Your task to perform on an android device: visit the assistant section in the google photos Image 0: 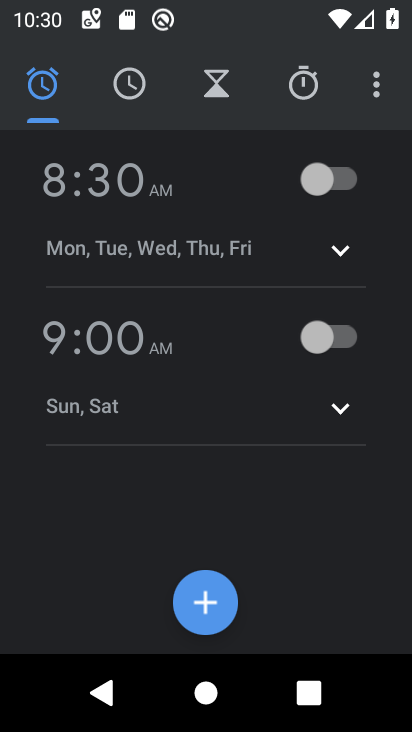
Step 0: press home button
Your task to perform on an android device: visit the assistant section in the google photos Image 1: 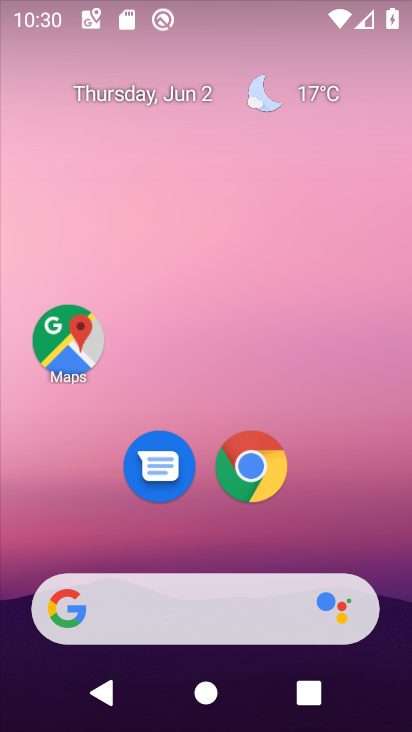
Step 1: drag from (216, 560) to (207, 215)
Your task to perform on an android device: visit the assistant section in the google photos Image 2: 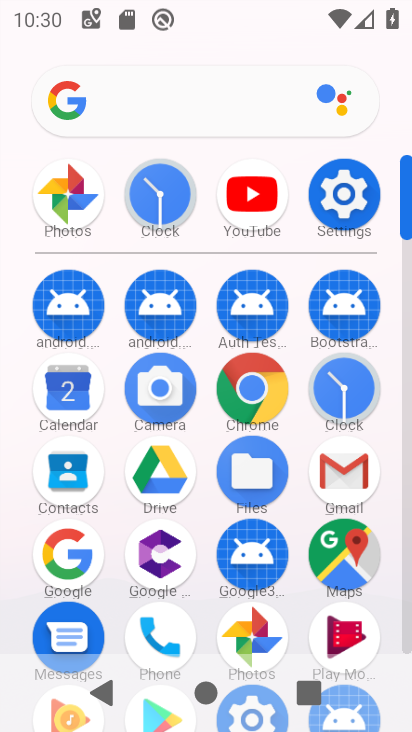
Step 2: click (236, 638)
Your task to perform on an android device: visit the assistant section in the google photos Image 3: 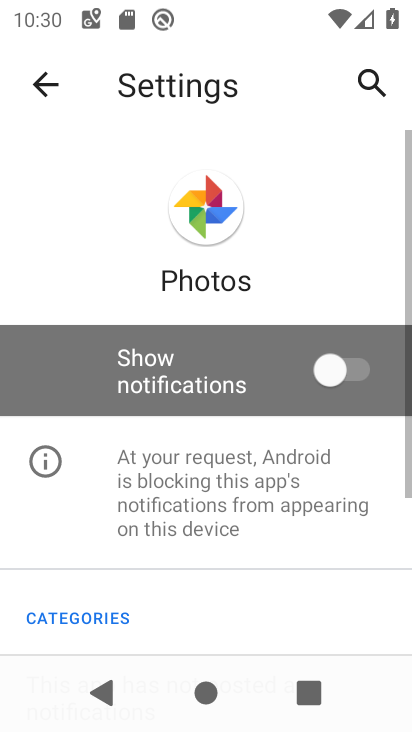
Step 3: click (59, 84)
Your task to perform on an android device: visit the assistant section in the google photos Image 4: 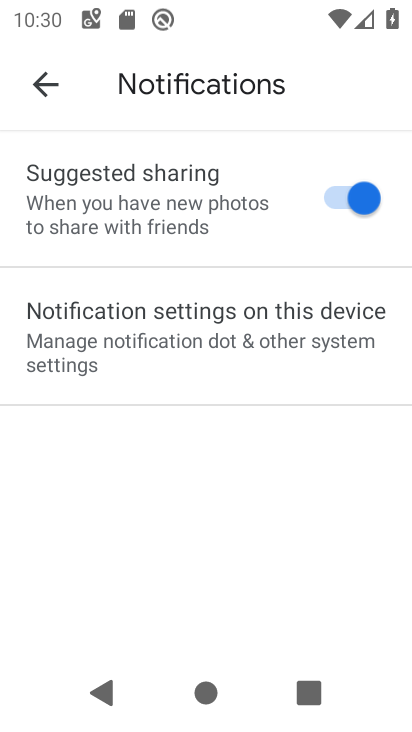
Step 4: click (26, 83)
Your task to perform on an android device: visit the assistant section in the google photos Image 5: 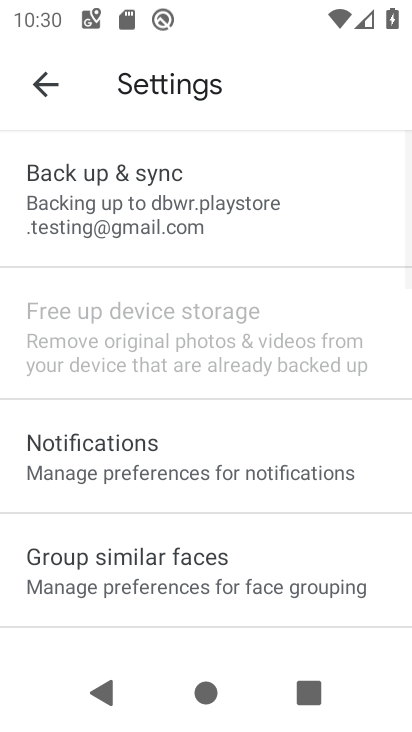
Step 5: click (30, 76)
Your task to perform on an android device: visit the assistant section in the google photos Image 6: 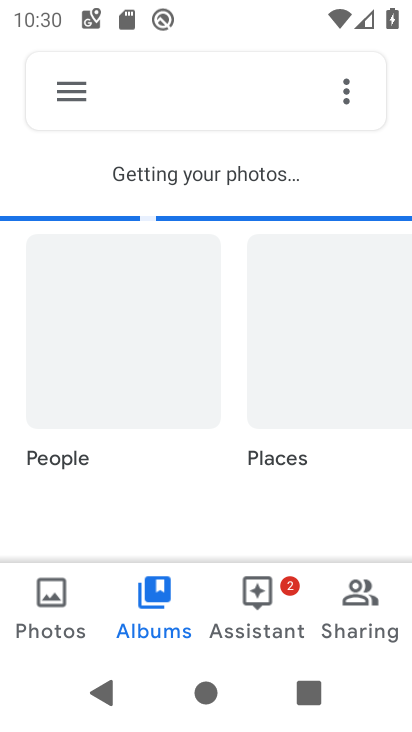
Step 6: click (235, 602)
Your task to perform on an android device: visit the assistant section in the google photos Image 7: 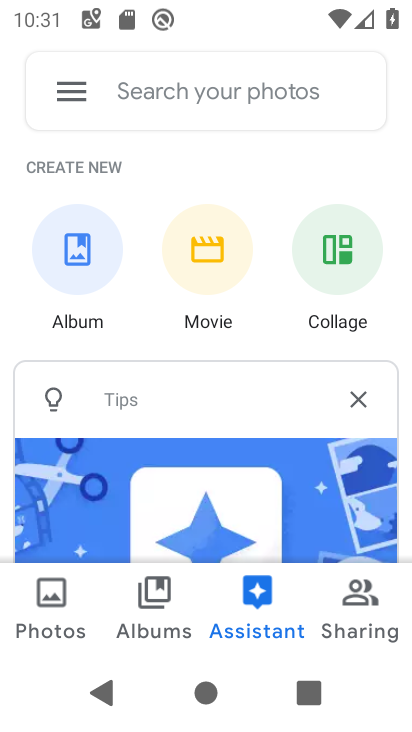
Step 7: task complete